Your task to perform on an android device: search for starred emails in the gmail app Image 0: 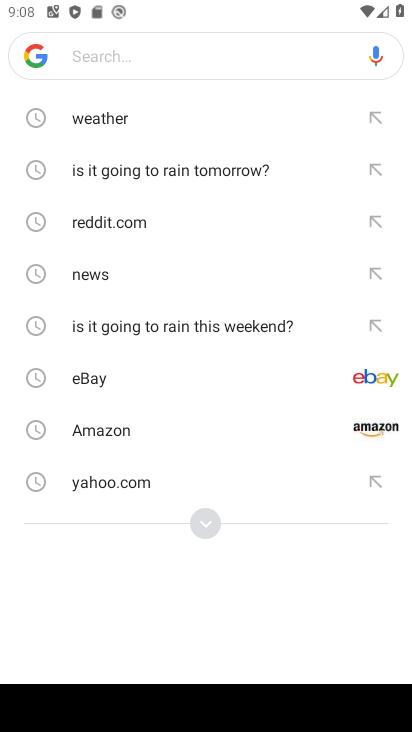
Step 0: press home button
Your task to perform on an android device: search for starred emails in the gmail app Image 1: 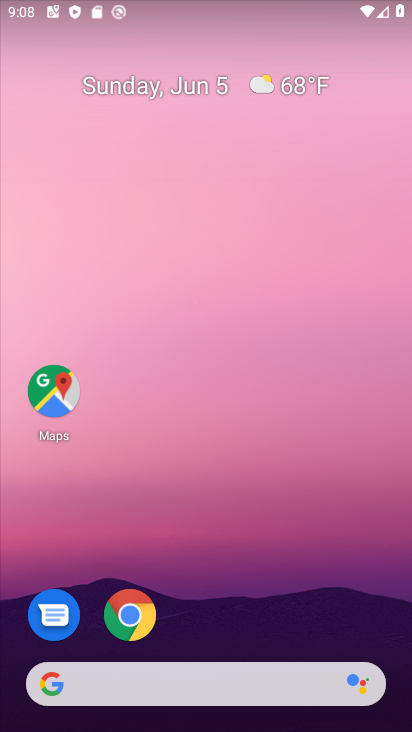
Step 1: drag from (161, 728) to (287, 128)
Your task to perform on an android device: search for starred emails in the gmail app Image 2: 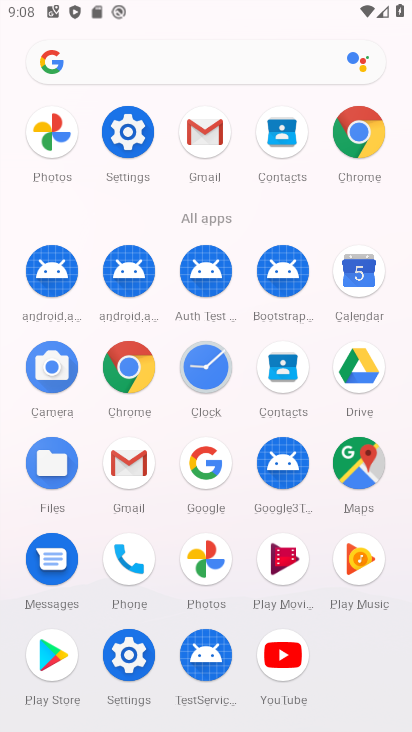
Step 2: click (145, 465)
Your task to perform on an android device: search for starred emails in the gmail app Image 3: 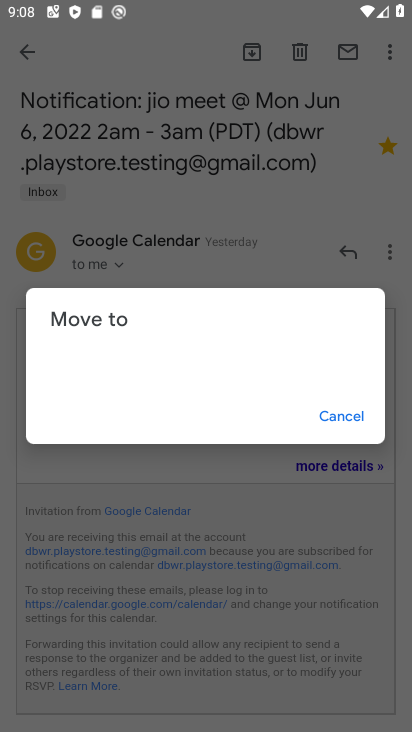
Step 3: click (343, 423)
Your task to perform on an android device: search for starred emails in the gmail app Image 4: 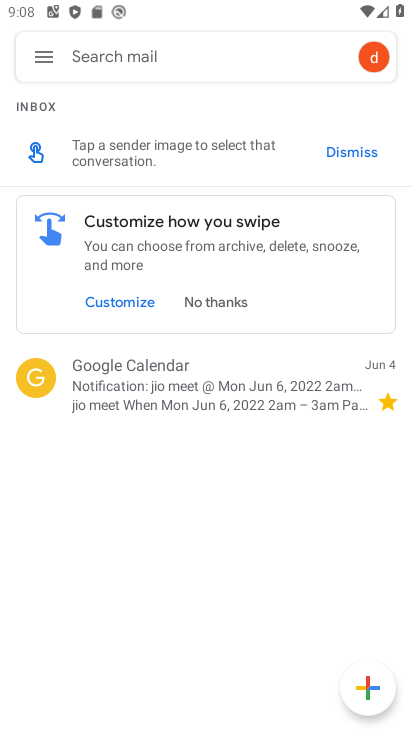
Step 4: click (61, 69)
Your task to perform on an android device: search for starred emails in the gmail app Image 5: 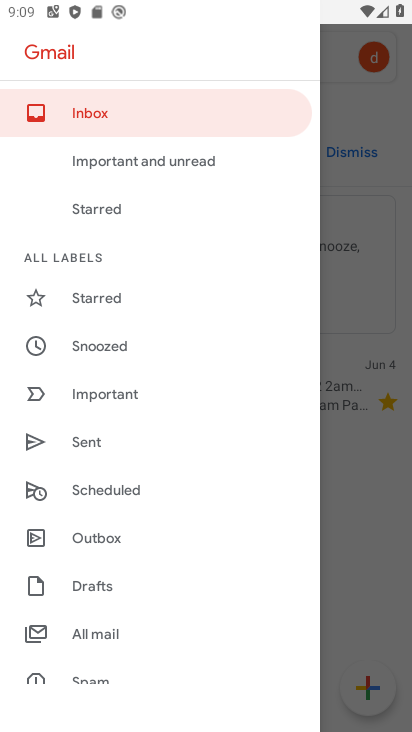
Step 5: click (108, 293)
Your task to perform on an android device: search for starred emails in the gmail app Image 6: 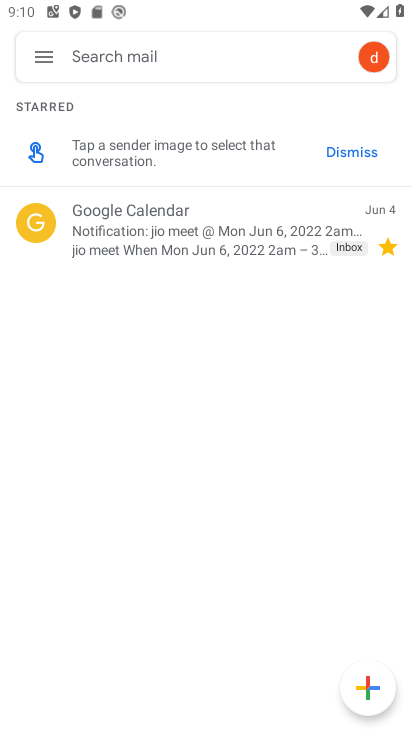
Step 6: task complete